Your task to perform on an android device: Go to internet settings Image 0: 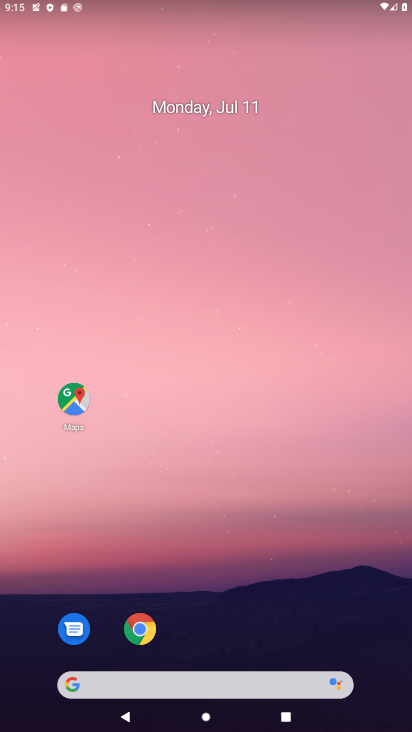
Step 0: drag from (39, 693) to (210, 137)
Your task to perform on an android device: Go to internet settings Image 1: 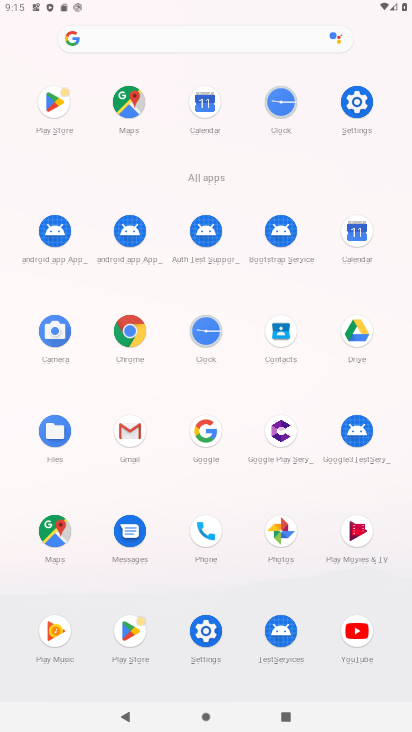
Step 1: click (195, 639)
Your task to perform on an android device: Go to internet settings Image 2: 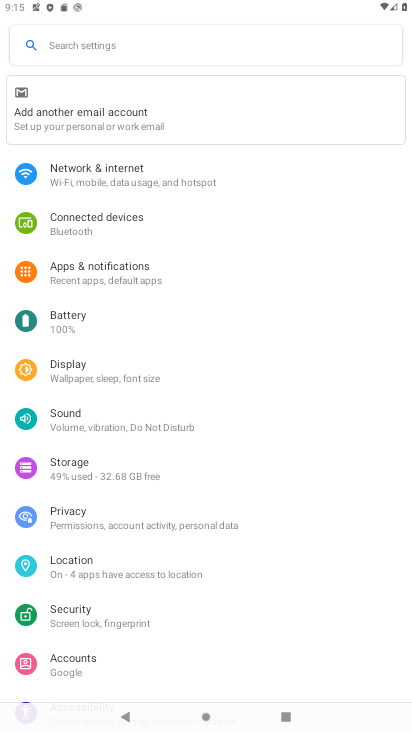
Step 2: click (96, 176)
Your task to perform on an android device: Go to internet settings Image 3: 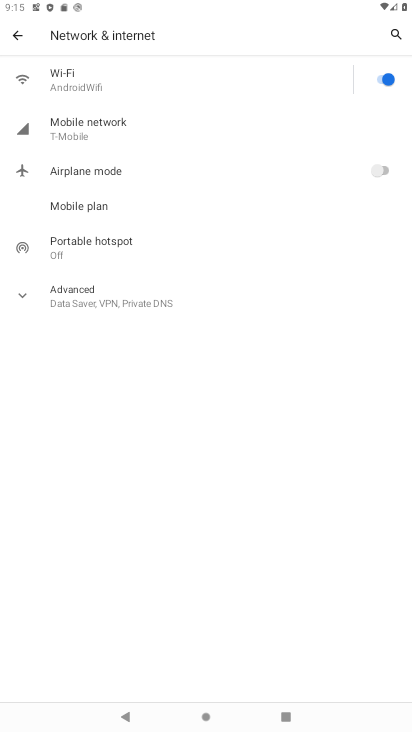
Step 3: task complete